Your task to perform on an android device: Open the phone app and click the voicemail tab. Image 0: 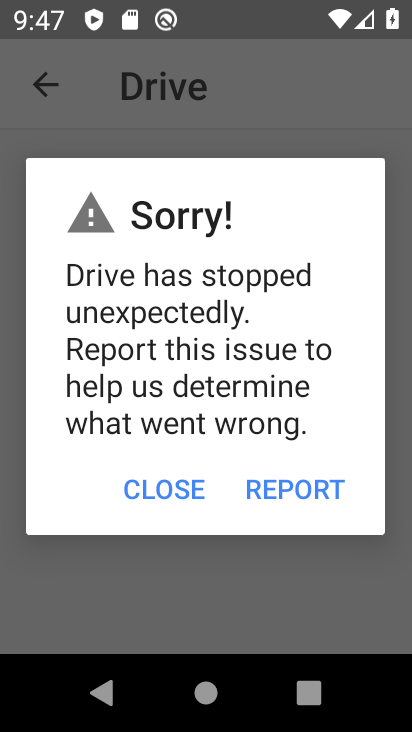
Step 0: press home button
Your task to perform on an android device: Open the phone app and click the voicemail tab. Image 1: 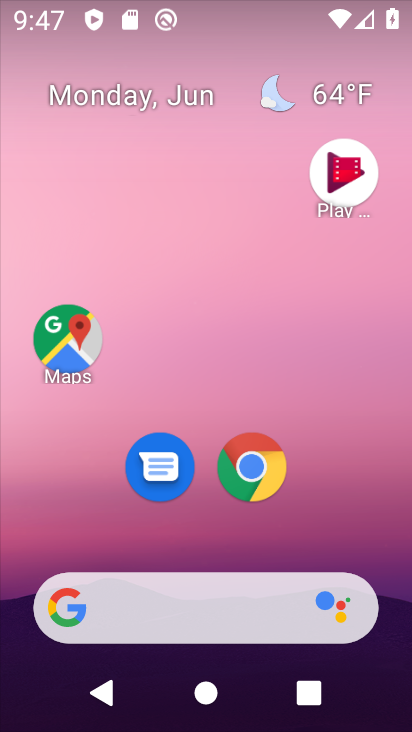
Step 1: drag from (122, 558) to (165, 156)
Your task to perform on an android device: Open the phone app and click the voicemail tab. Image 2: 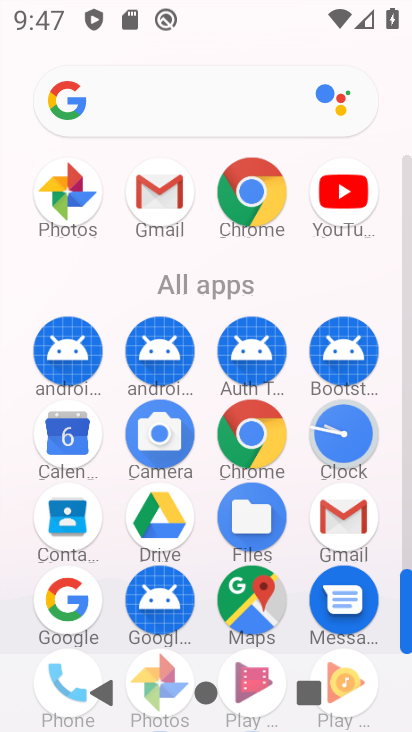
Step 2: drag from (156, 520) to (196, 325)
Your task to perform on an android device: Open the phone app and click the voicemail tab. Image 3: 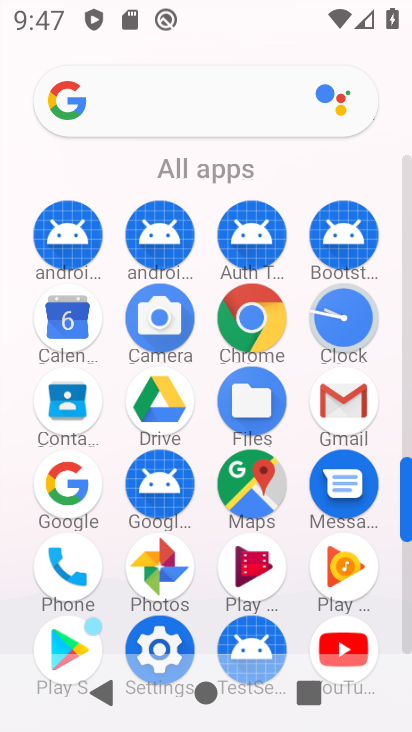
Step 3: click (48, 576)
Your task to perform on an android device: Open the phone app and click the voicemail tab. Image 4: 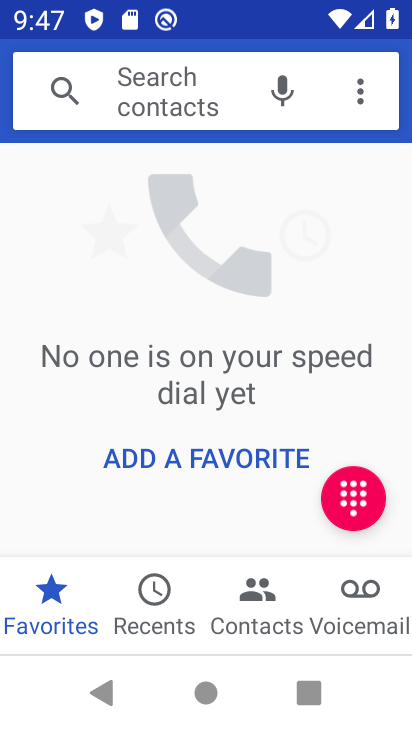
Step 4: click (365, 583)
Your task to perform on an android device: Open the phone app and click the voicemail tab. Image 5: 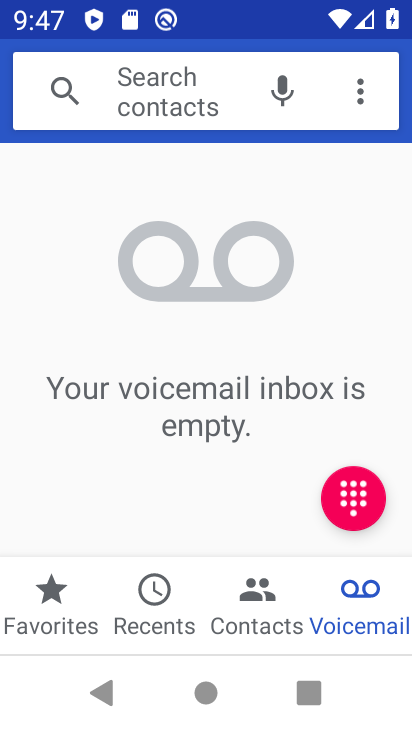
Step 5: task complete